Your task to perform on an android device: empty trash in google photos Image 0: 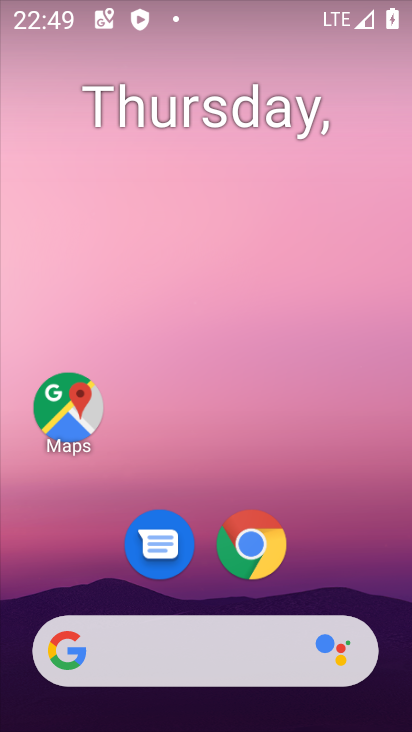
Step 0: drag from (333, 544) to (132, 141)
Your task to perform on an android device: empty trash in google photos Image 1: 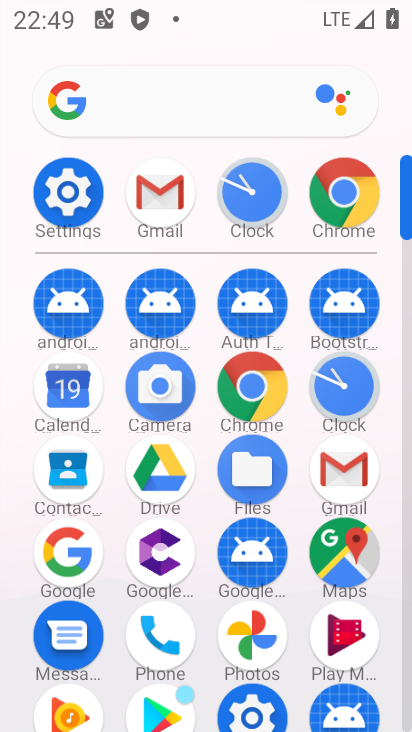
Step 1: click (252, 641)
Your task to perform on an android device: empty trash in google photos Image 2: 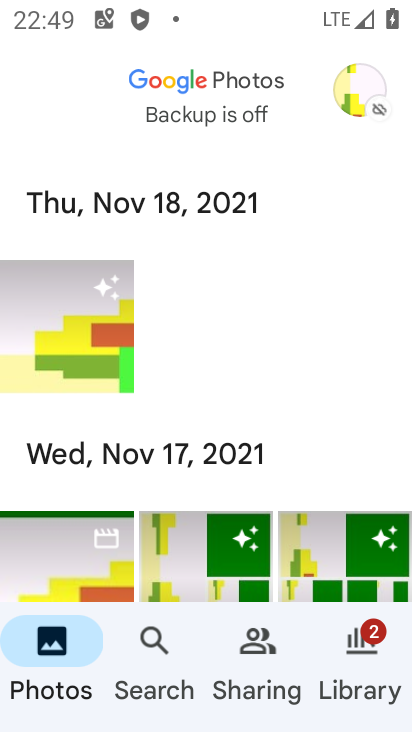
Step 2: click (402, 653)
Your task to perform on an android device: empty trash in google photos Image 3: 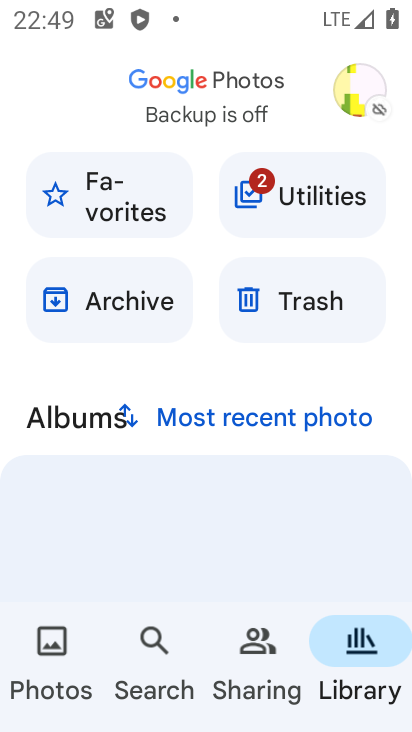
Step 3: click (312, 318)
Your task to perform on an android device: empty trash in google photos Image 4: 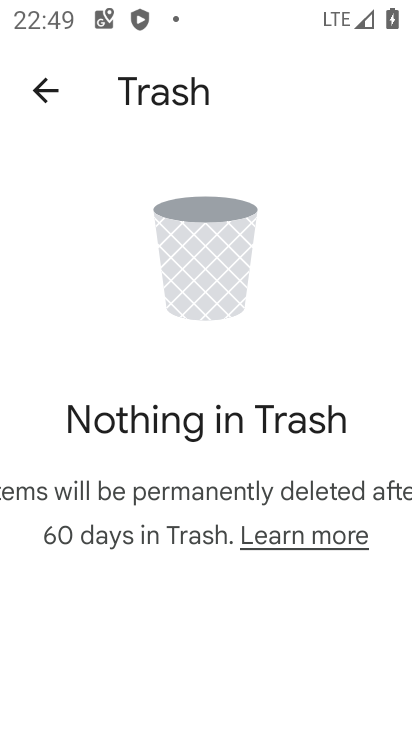
Step 4: task complete